Your task to perform on an android device: Search for Mexican restaurants on Maps Image 0: 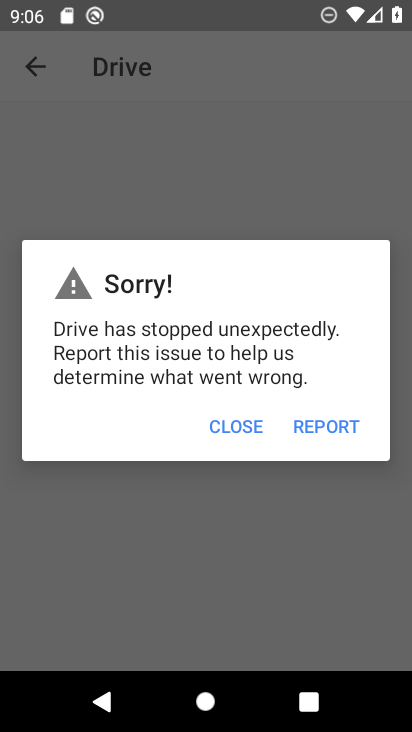
Step 0: press home button
Your task to perform on an android device: Search for Mexican restaurants on Maps Image 1: 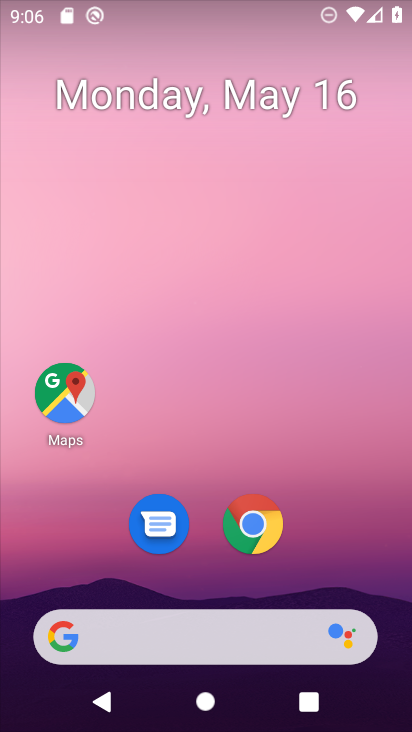
Step 1: click (60, 395)
Your task to perform on an android device: Search for Mexican restaurants on Maps Image 2: 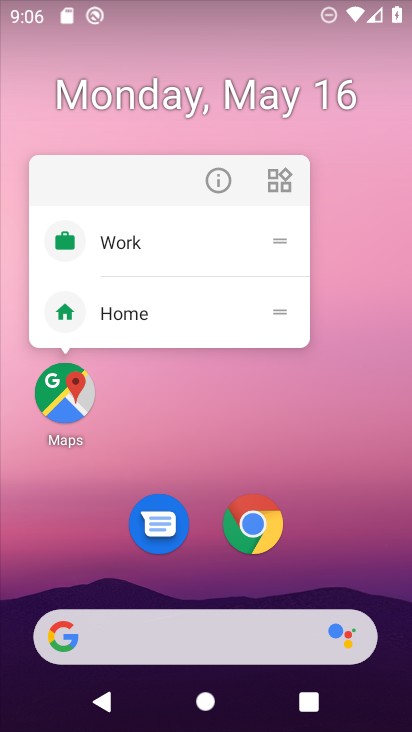
Step 2: click (60, 395)
Your task to perform on an android device: Search for Mexican restaurants on Maps Image 3: 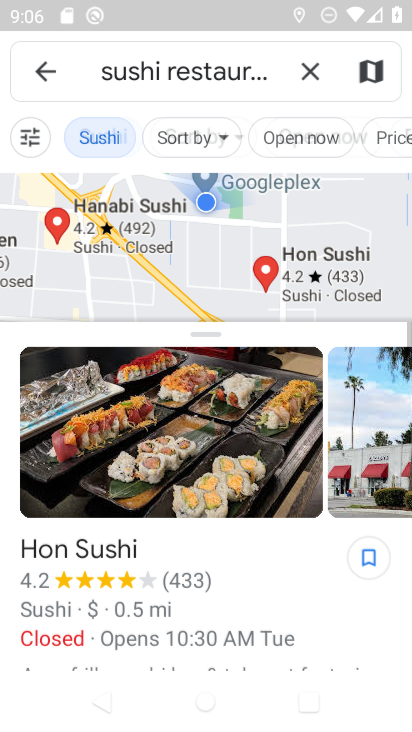
Step 3: click (310, 61)
Your task to perform on an android device: Search for Mexican restaurants on Maps Image 4: 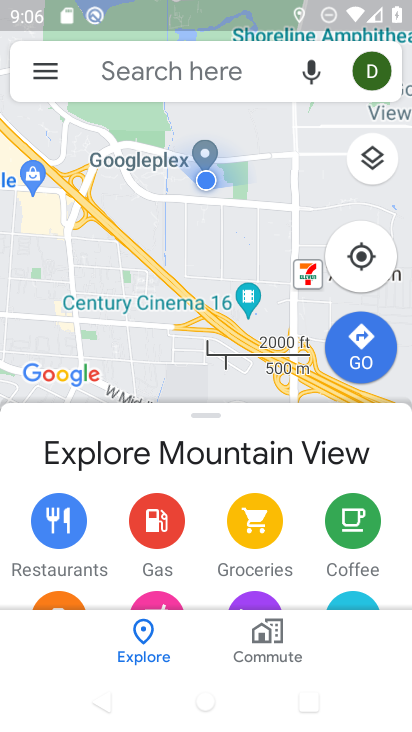
Step 4: click (219, 66)
Your task to perform on an android device: Search for Mexican restaurants on Maps Image 5: 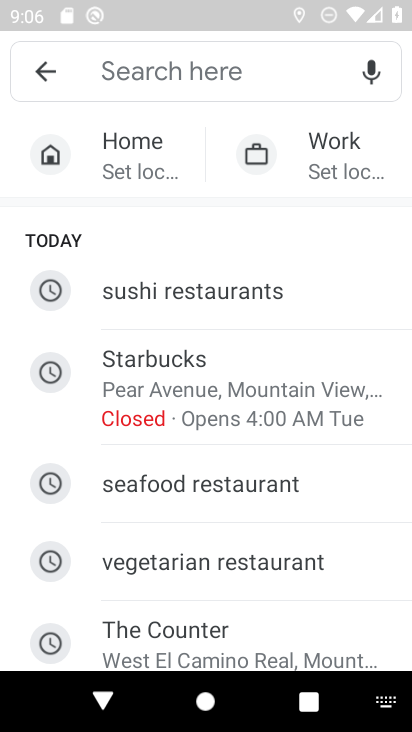
Step 5: drag from (198, 521) to (250, 201)
Your task to perform on an android device: Search for Mexican restaurants on Maps Image 6: 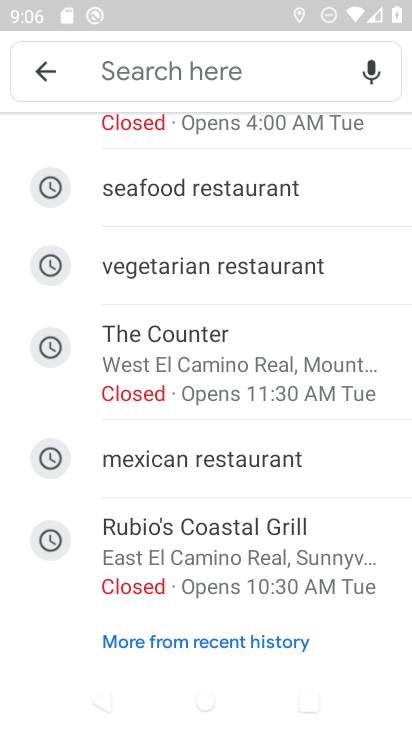
Step 6: click (233, 458)
Your task to perform on an android device: Search for Mexican restaurants on Maps Image 7: 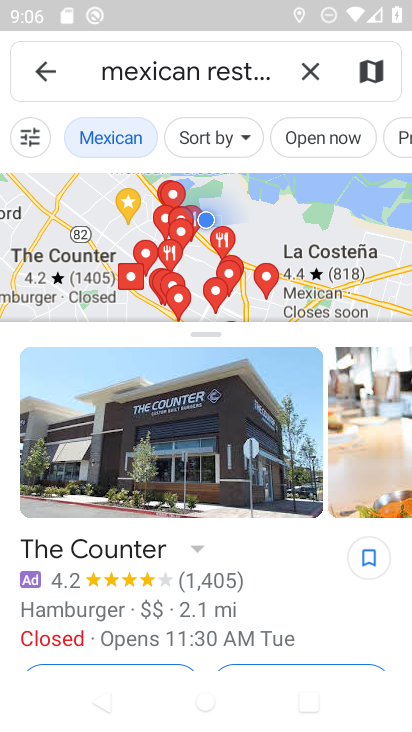
Step 7: task complete